Your task to perform on an android device: Go to Wikipedia Image 0: 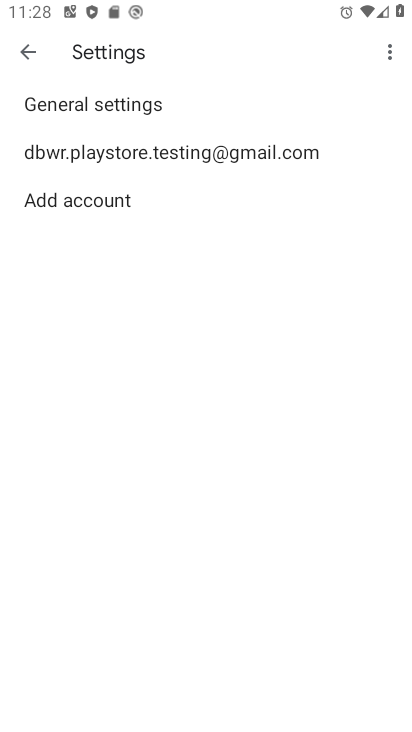
Step 0: press home button
Your task to perform on an android device: Go to Wikipedia Image 1: 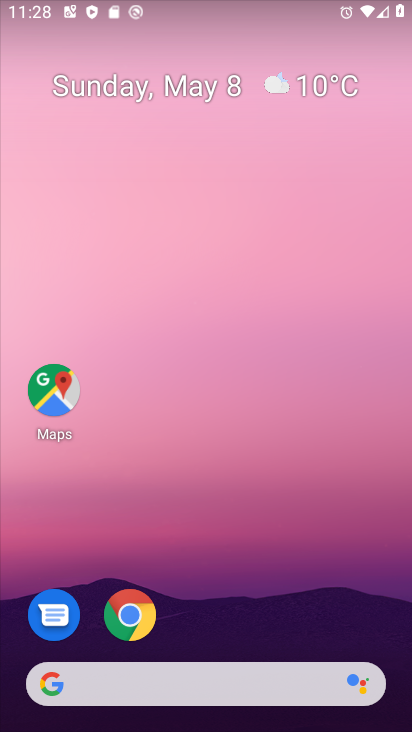
Step 1: drag from (280, 709) to (234, 388)
Your task to perform on an android device: Go to Wikipedia Image 2: 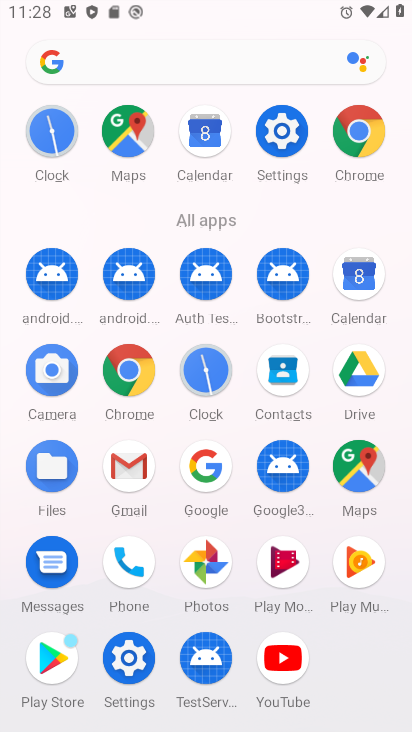
Step 2: click (341, 143)
Your task to perform on an android device: Go to Wikipedia Image 3: 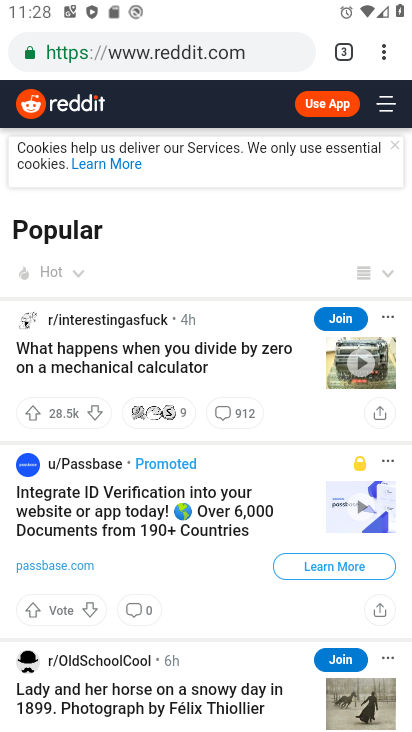
Step 3: click (203, 62)
Your task to perform on an android device: Go to Wikipedia Image 4: 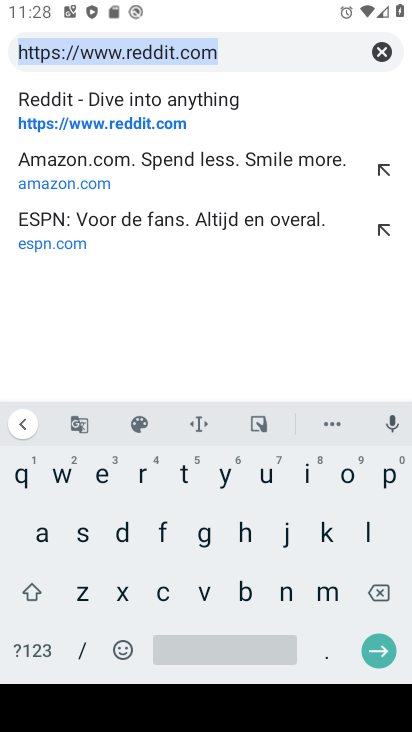
Step 4: click (378, 57)
Your task to perform on an android device: Go to Wikipedia Image 5: 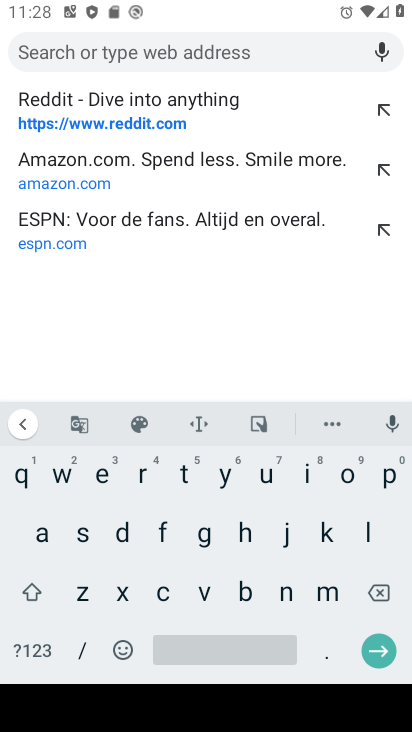
Step 5: click (57, 478)
Your task to perform on an android device: Go to Wikipedia Image 6: 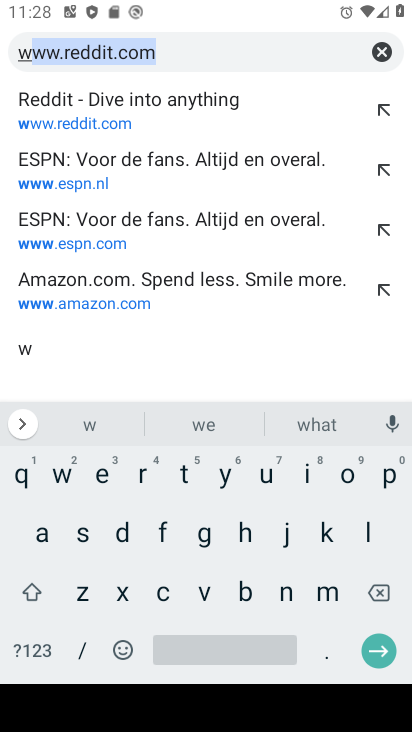
Step 6: click (305, 463)
Your task to perform on an android device: Go to Wikipedia Image 7: 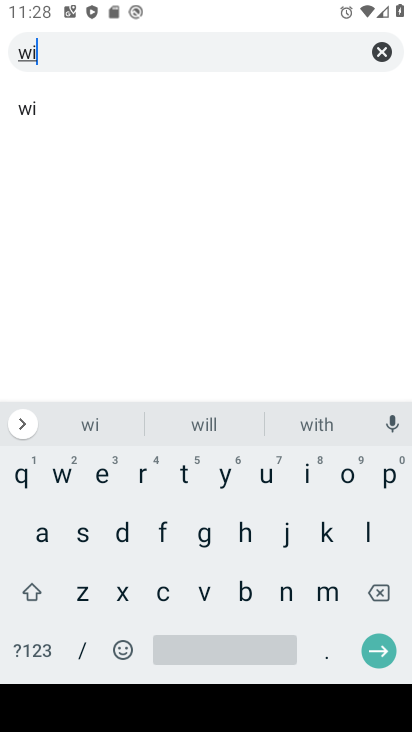
Step 7: click (327, 530)
Your task to perform on an android device: Go to Wikipedia Image 8: 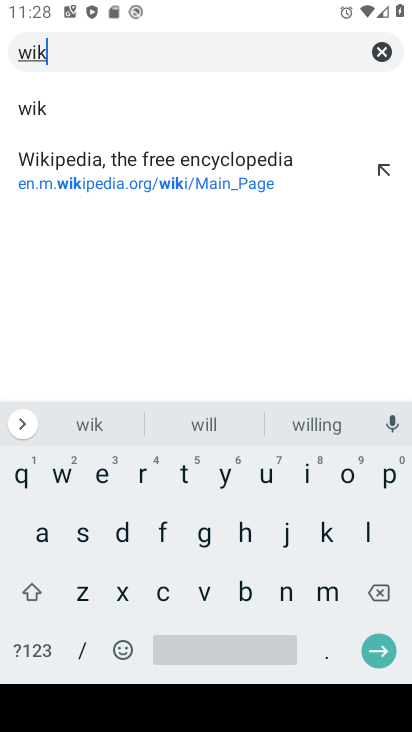
Step 8: click (112, 177)
Your task to perform on an android device: Go to Wikipedia Image 9: 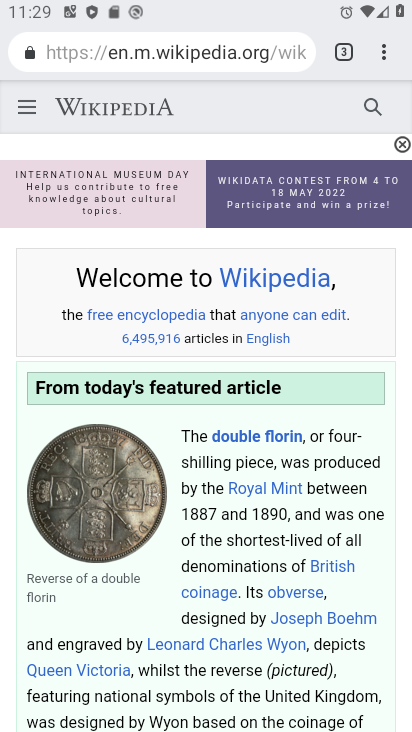
Step 9: task complete